Your task to perform on an android device: When is my next appointment? Image 0: 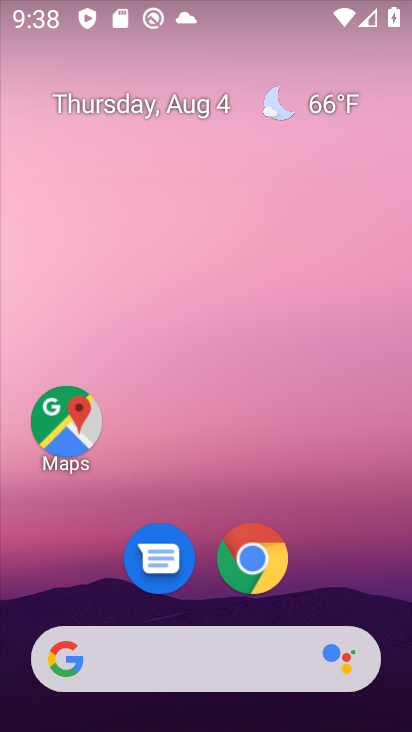
Step 0: drag from (366, 582) to (357, 115)
Your task to perform on an android device: When is my next appointment? Image 1: 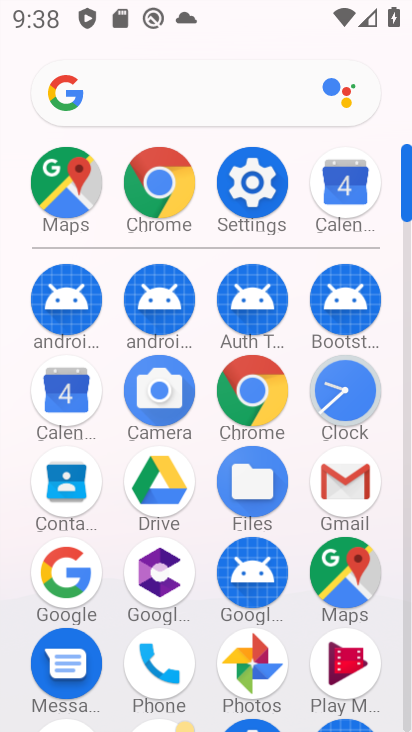
Step 1: click (56, 395)
Your task to perform on an android device: When is my next appointment? Image 2: 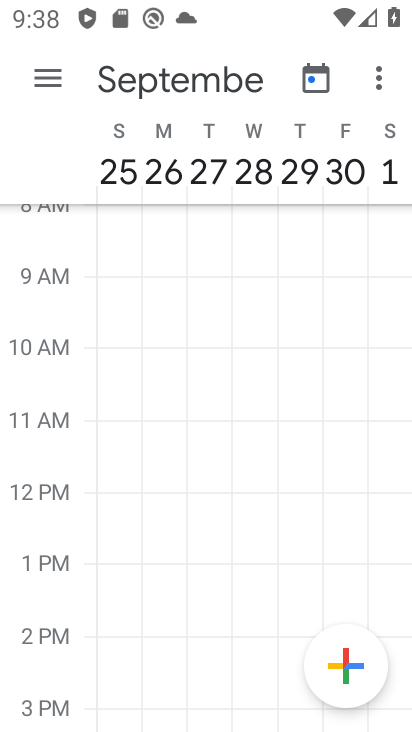
Step 2: click (101, 81)
Your task to perform on an android device: When is my next appointment? Image 3: 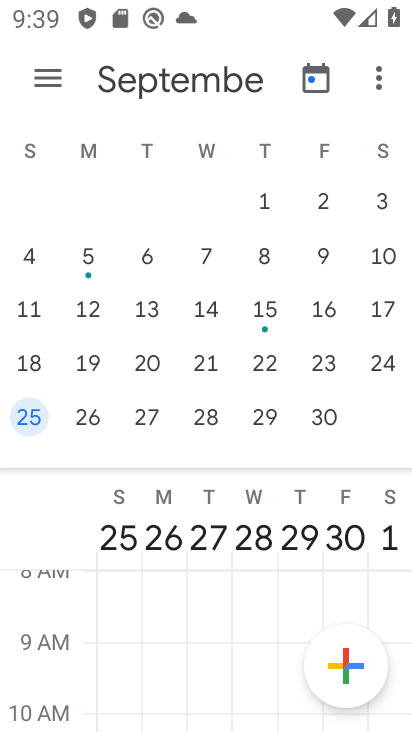
Step 3: drag from (33, 319) to (330, 308)
Your task to perform on an android device: When is my next appointment? Image 4: 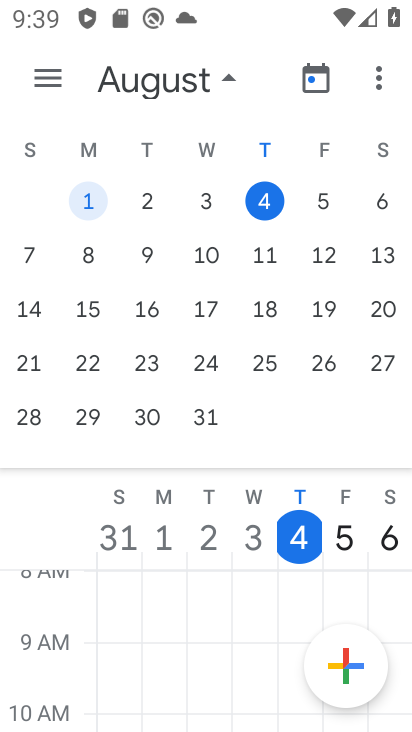
Step 4: click (264, 191)
Your task to perform on an android device: When is my next appointment? Image 5: 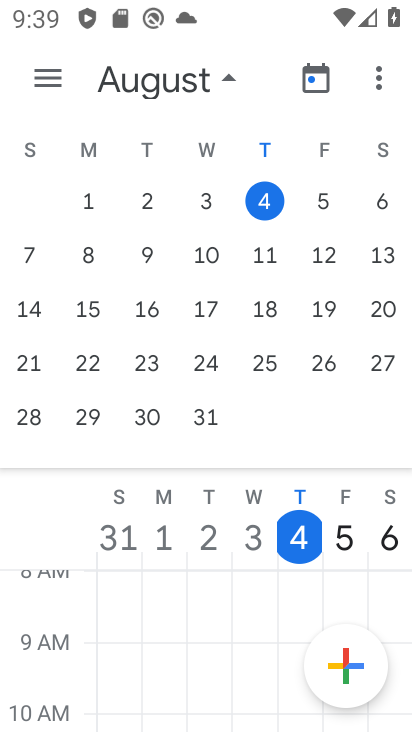
Step 5: drag from (271, 495) to (254, 92)
Your task to perform on an android device: When is my next appointment? Image 6: 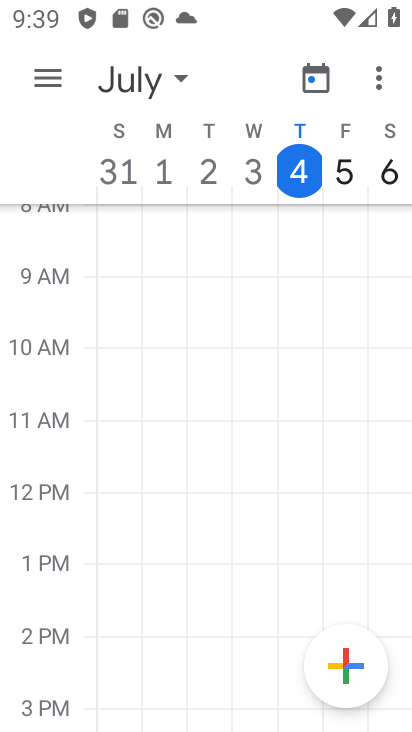
Step 6: click (344, 177)
Your task to perform on an android device: When is my next appointment? Image 7: 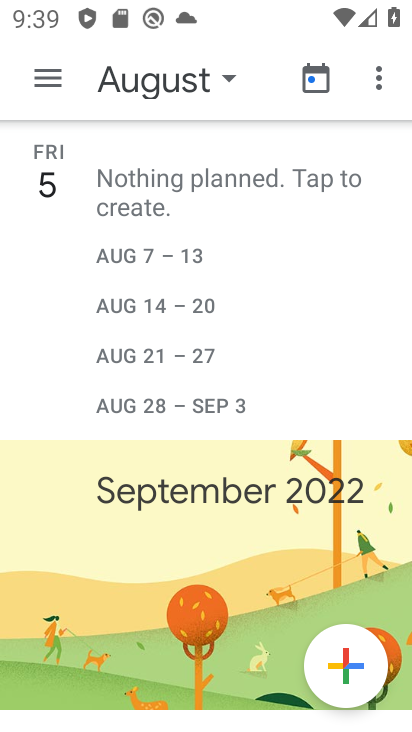
Step 7: click (48, 84)
Your task to perform on an android device: When is my next appointment? Image 8: 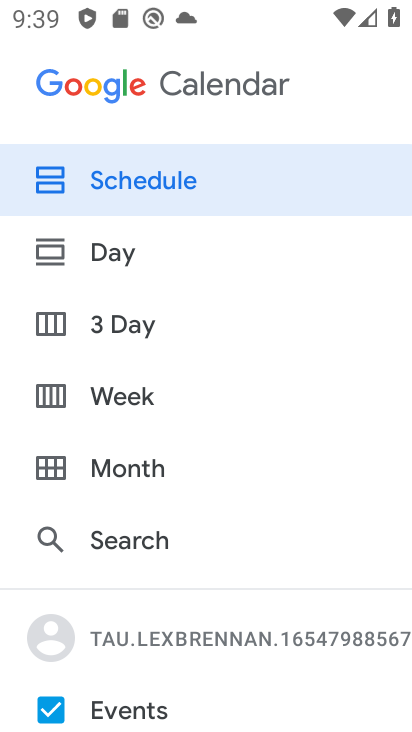
Step 8: click (95, 307)
Your task to perform on an android device: When is my next appointment? Image 9: 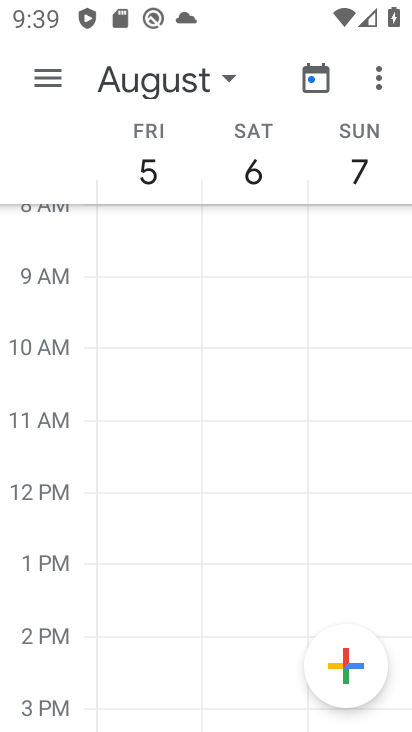
Step 9: task complete